Your task to perform on an android device: Open network settings Image 0: 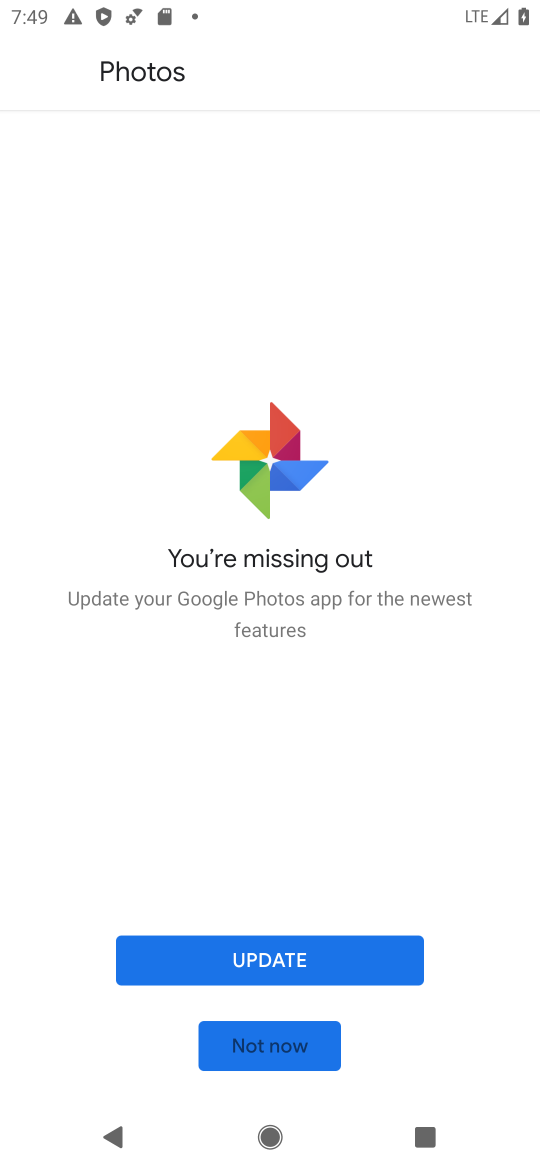
Step 0: press home button
Your task to perform on an android device: Open network settings Image 1: 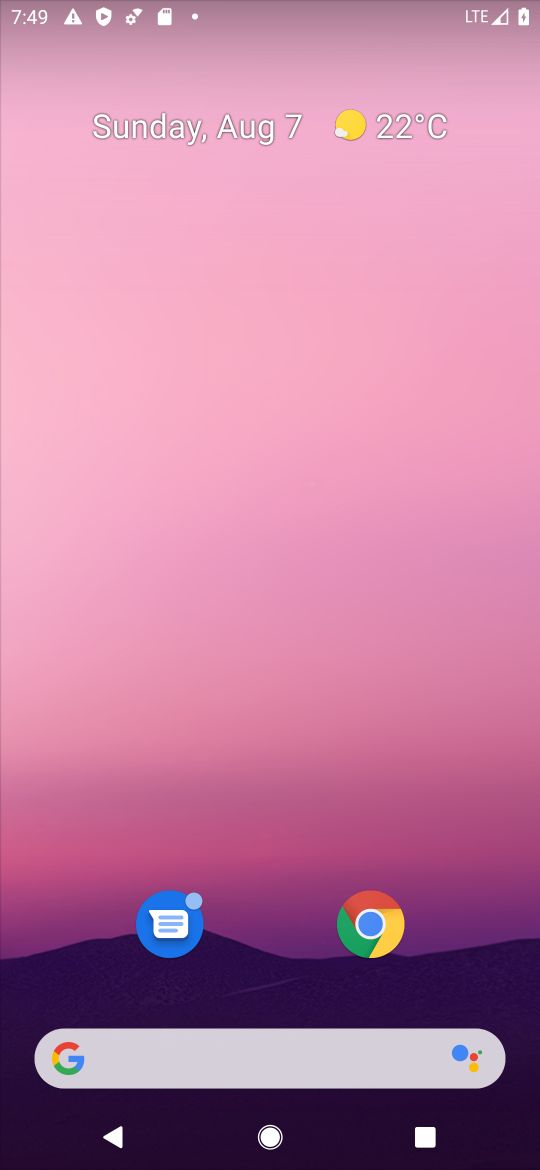
Step 1: drag from (283, 911) to (227, 1)
Your task to perform on an android device: Open network settings Image 2: 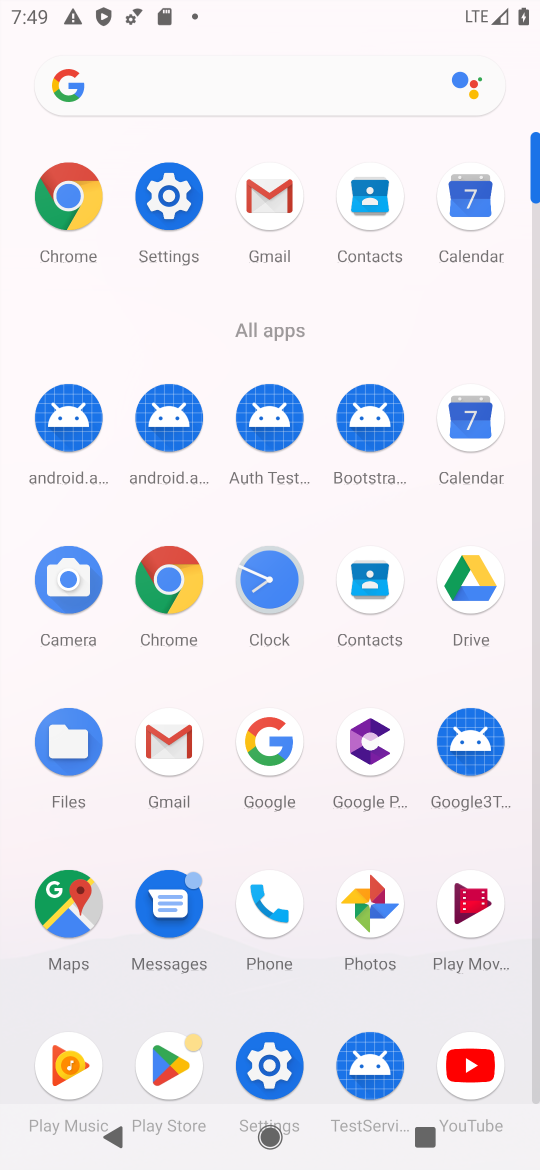
Step 2: click (179, 190)
Your task to perform on an android device: Open network settings Image 3: 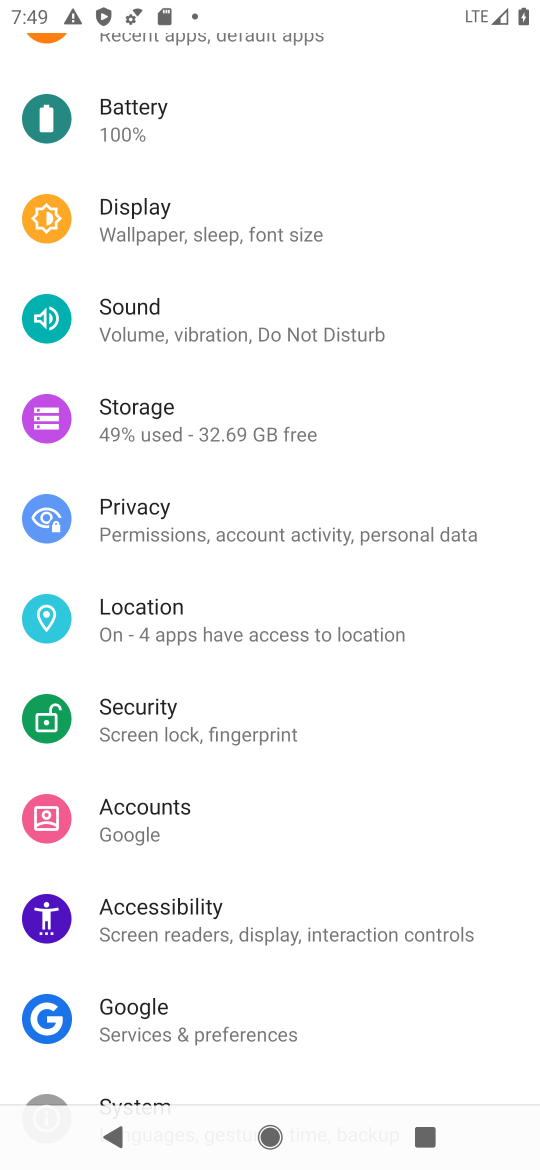
Step 3: drag from (316, 680) to (337, 925)
Your task to perform on an android device: Open network settings Image 4: 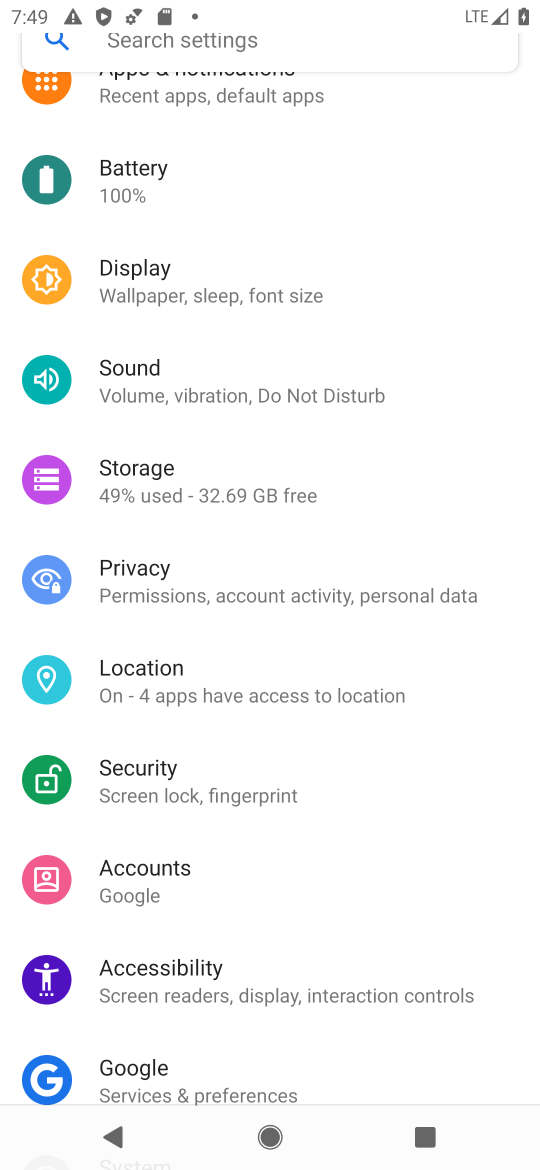
Step 4: drag from (261, 241) to (267, 901)
Your task to perform on an android device: Open network settings Image 5: 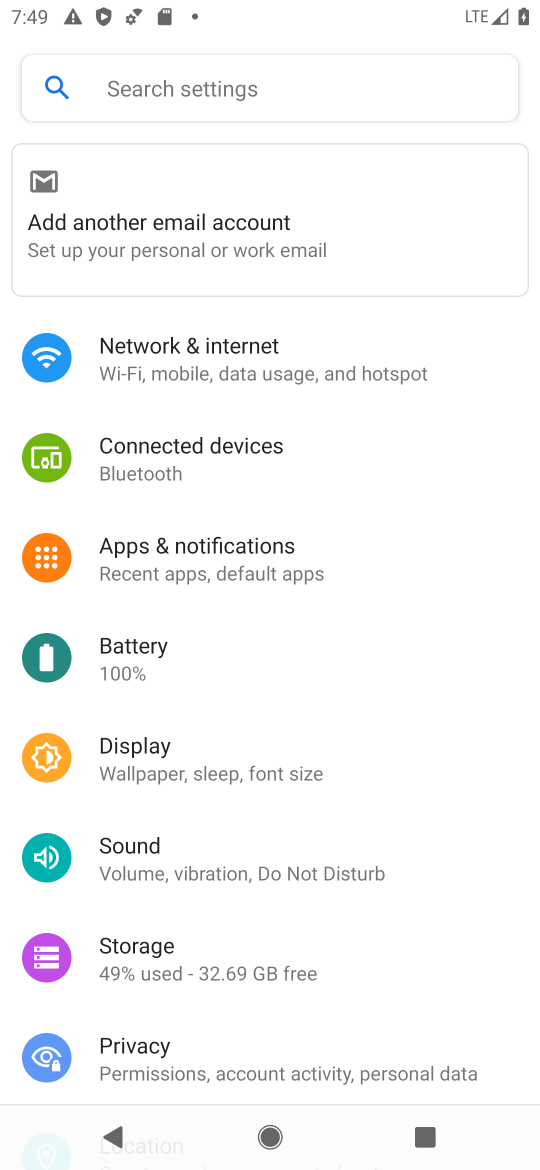
Step 5: click (280, 357)
Your task to perform on an android device: Open network settings Image 6: 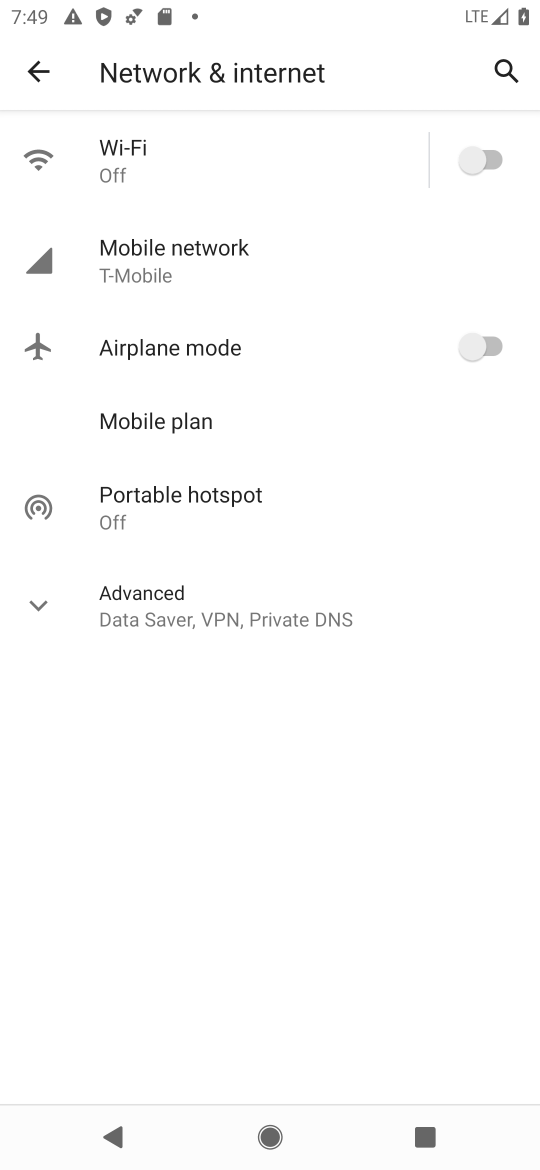
Step 6: task complete